Your task to perform on an android device: turn off javascript in the chrome app Image 0: 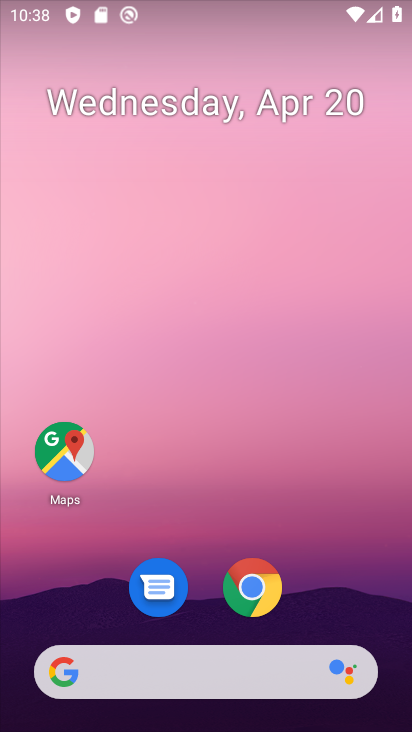
Step 0: drag from (380, 550) to (245, 8)
Your task to perform on an android device: turn off javascript in the chrome app Image 1: 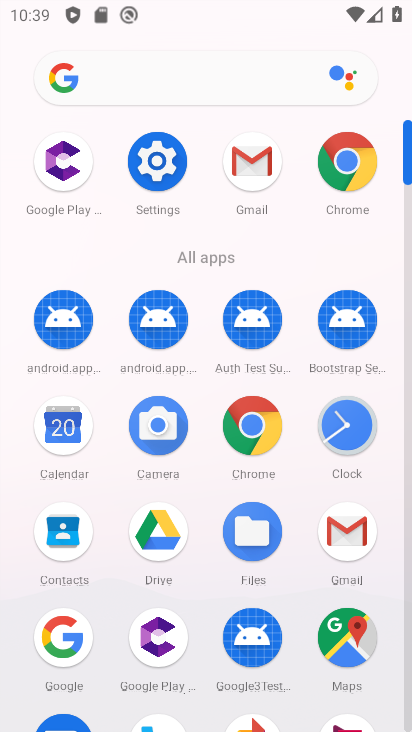
Step 1: drag from (6, 511) to (0, 217)
Your task to perform on an android device: turn off javascript in the chrome app Image 2: 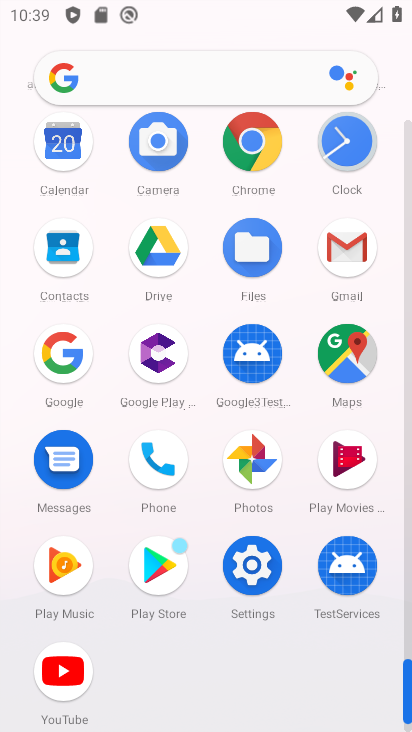
Step 2: click (254, 138)
Your task to perform on an android device: turn off javascript in the chrome app Image 3: 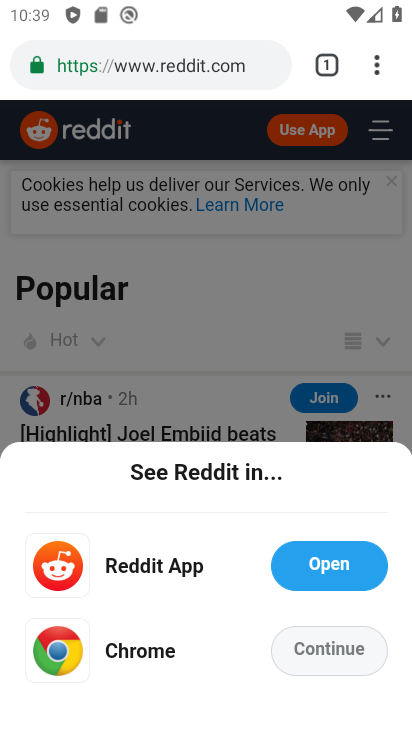
Step 3: drag from (376, 63) to (199, 627)
Your task to perform on an android device: turn off javascript in the chrome app Image 4: 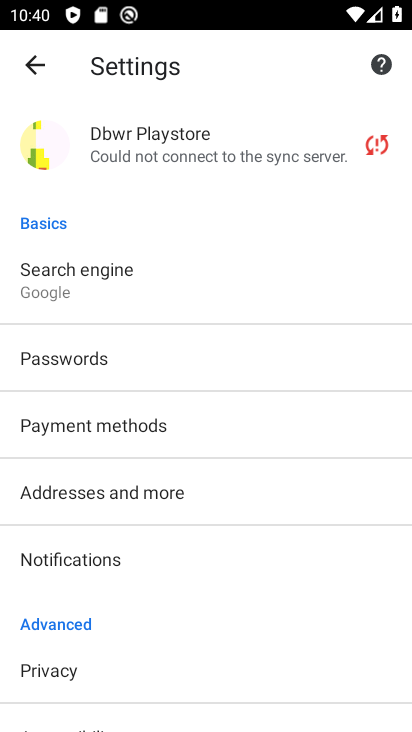
Step 4: drag from (224, 574) to (201, 171)
Your task to perform on an android device: turn off javascript in the chrome app Image 5: 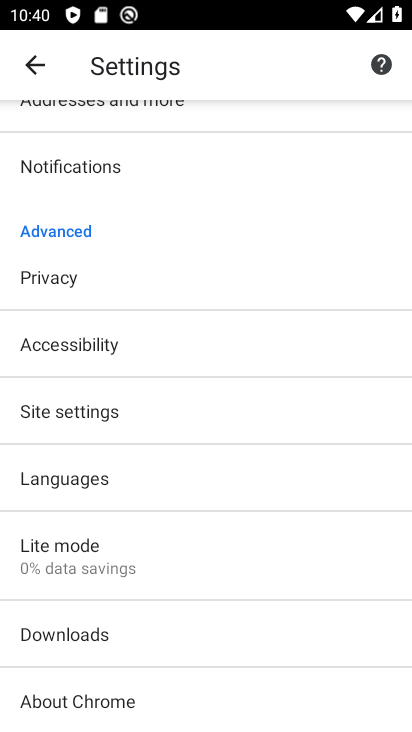
Step 5: click (103, 405)
Your task to perform on an android device: turn off javascript in the chrome app Image 6: 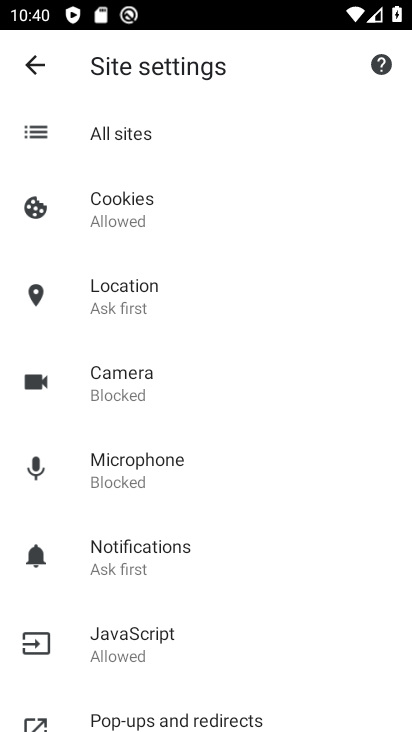
Step 6: click (174, 637)
Your task to perform on an android device: turn off javascript in the chrome app Image 7: 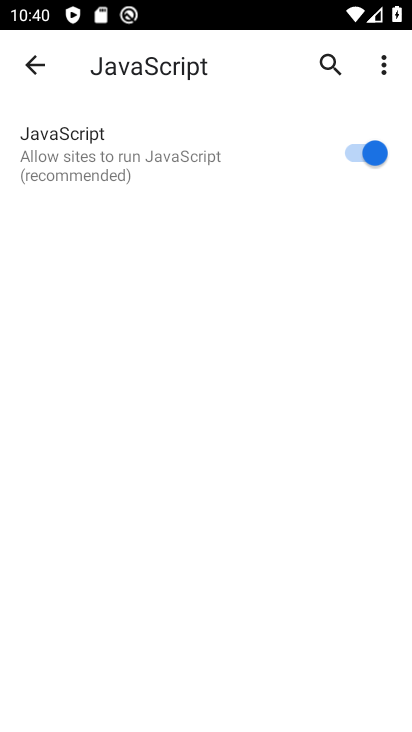
Step 7: click (358, 156)
Your task to perform on an android device: turn off javascript in the chrome app Image 8: 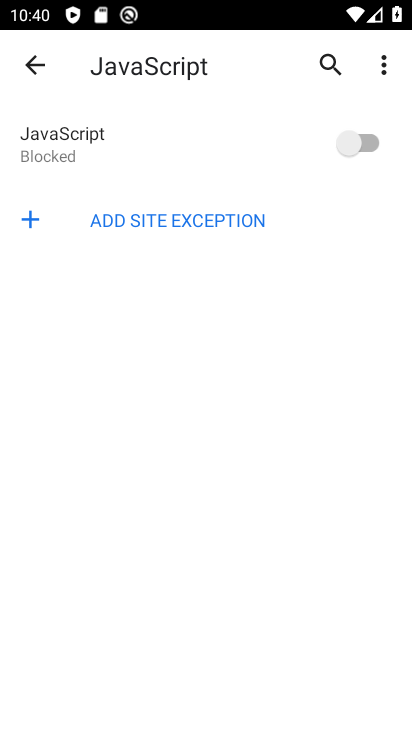
Step 8: task complete